Your task to perform on an android device: check storage Image 0: 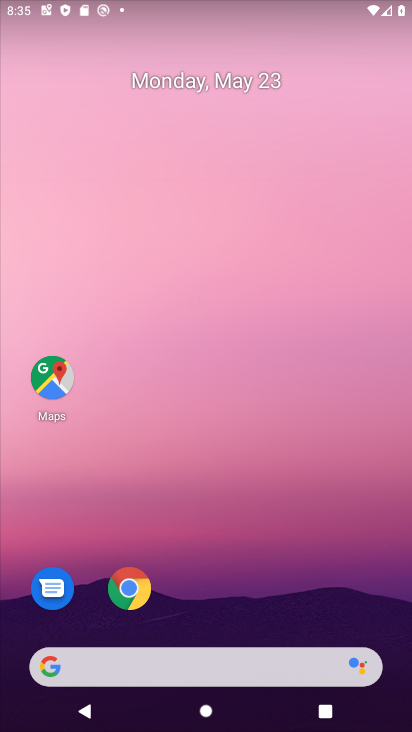
Step 0: drag from (395, 676) to (354, 265)
Your task to perform on an android device: check storage Image 1: 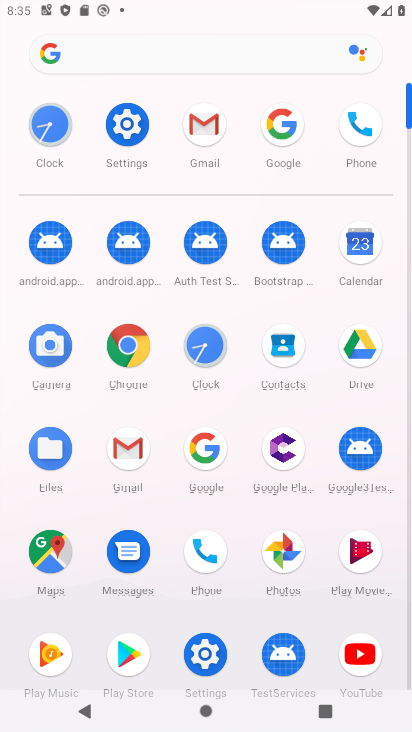
Step 1: click (221, 648)
Your task to perform on an android device: check storage Image 2: 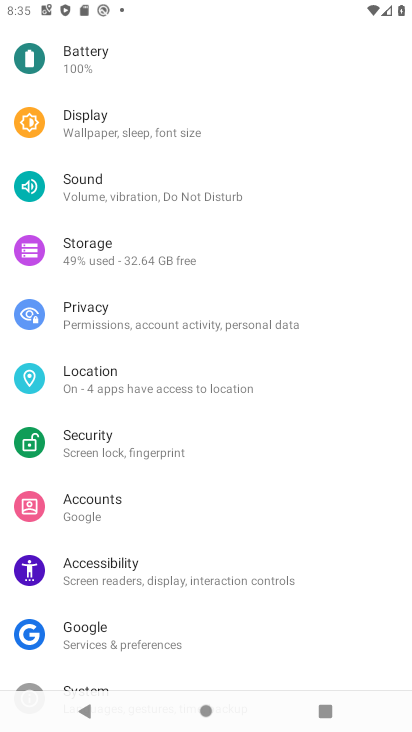
Step 2: click (88, 256)
Your task to perform on an android device: check storage Image 3: 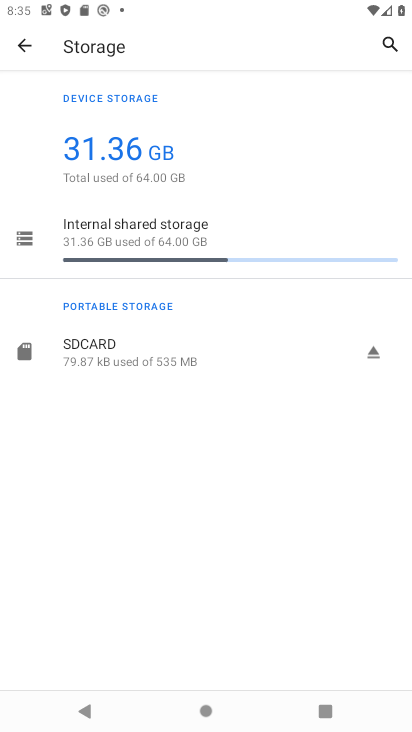
Step 3: click (96, 349)
Your task to perform on an android device: check storage Image 4: 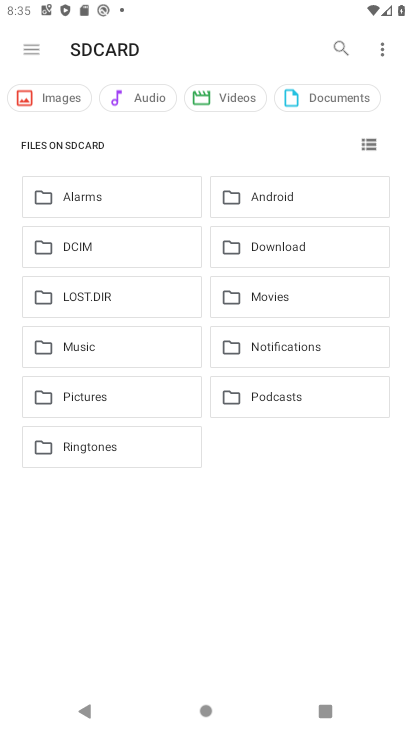
Step 4: click (102, 396)
Your task to perform on an android device: check storage Image 5: 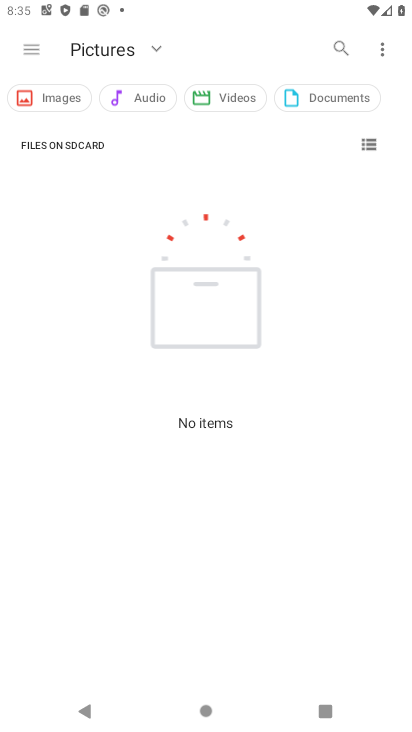
Step 5: press back button
Your task to perform on an android device: check storage Image 6: 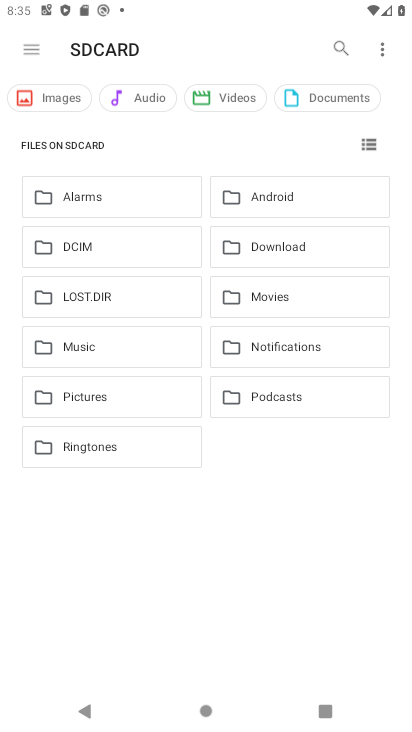
Step 6: click (87, 349)
Your task to perform on an android device: check storage Image 7: 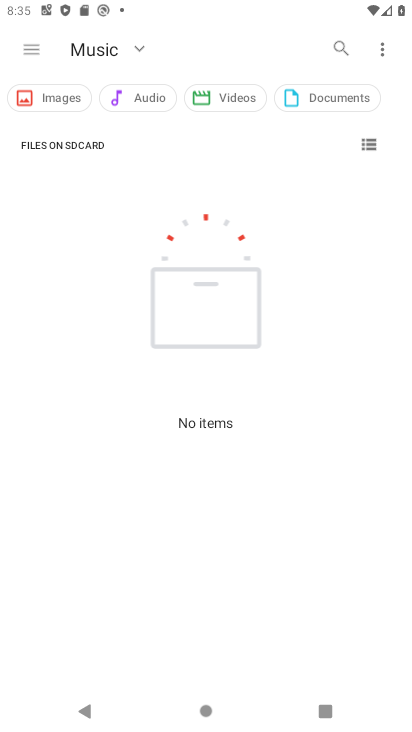
Step 7: task complete